Your task to perform on an android device: find photos in the google photos app Image 0: 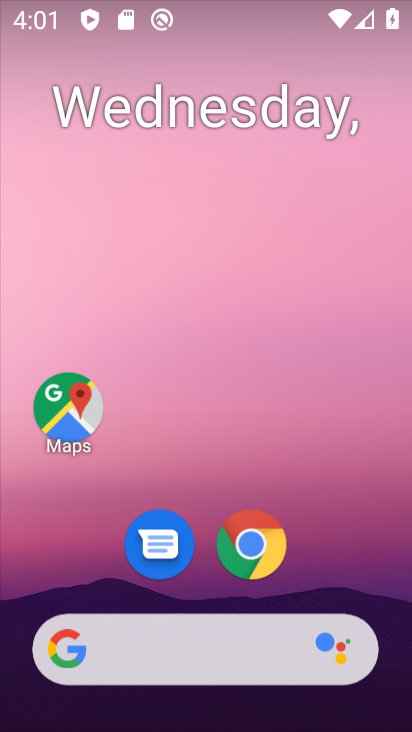
Step 0: drag from (94, 620) to (216, 146)
Your task to perform on an android device: find photos in the google photos app Image 1: 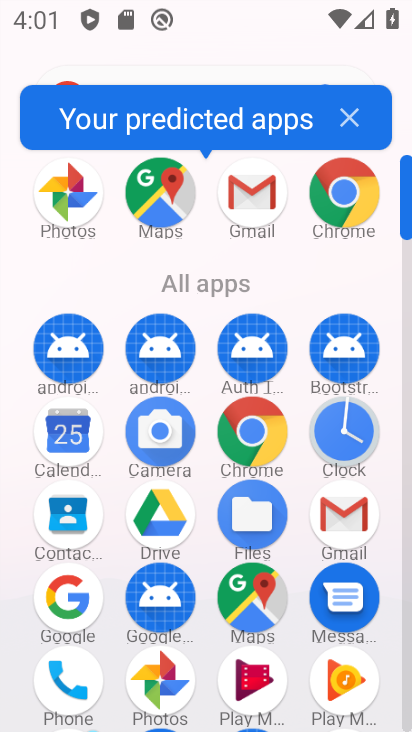
Step 1: click (167, 684)
Your task to perform on an android device: find photos in the google photos app Image 2: 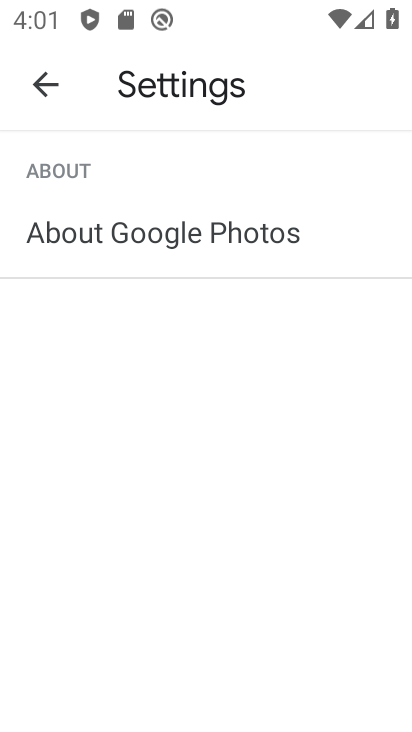
Step 2: press back button
Your task to perform on an android device: find photos in the google photos app Image 3: 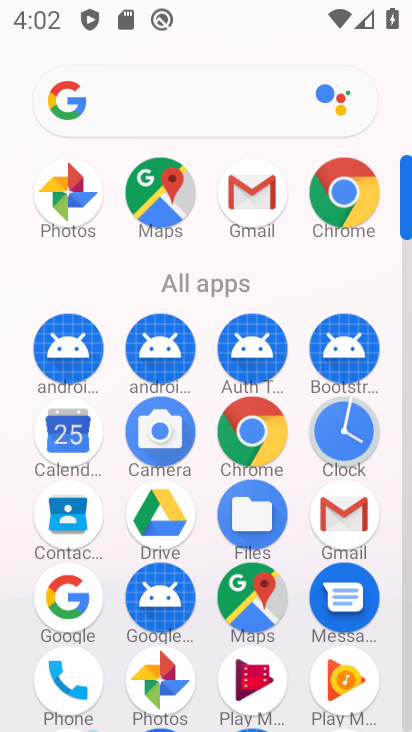
Step 3: click (131, 683)
Your task to perform on an android device: find photos in the google photos app Image 4: 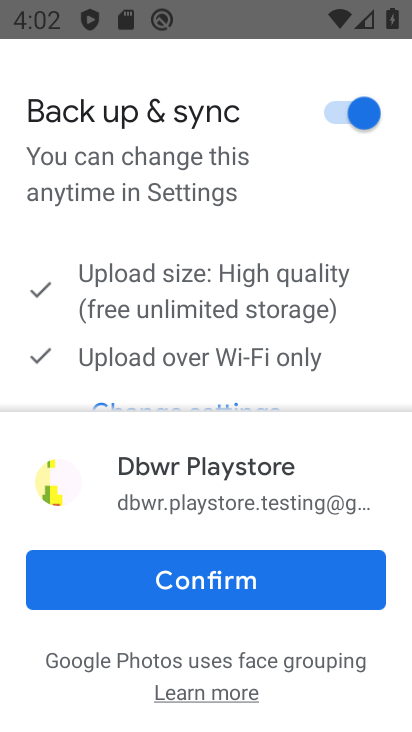
Step 4: click (237, 585)
Your task to perform on an android device: find photos in the google photos app Image 5: 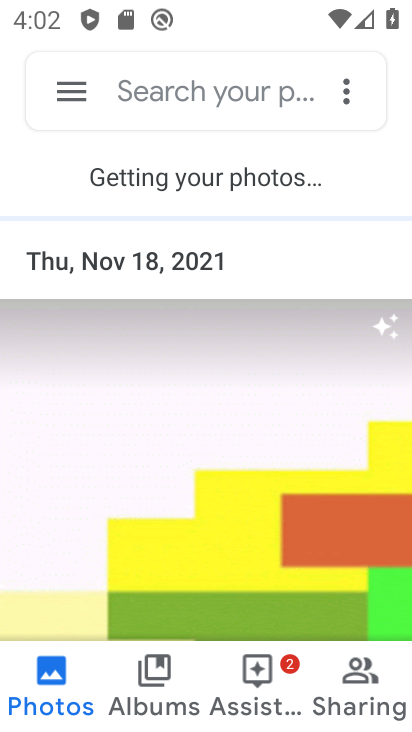
Step 5: task complete